Your task to perform on an android device: Search for the best 4K TV Image 0: 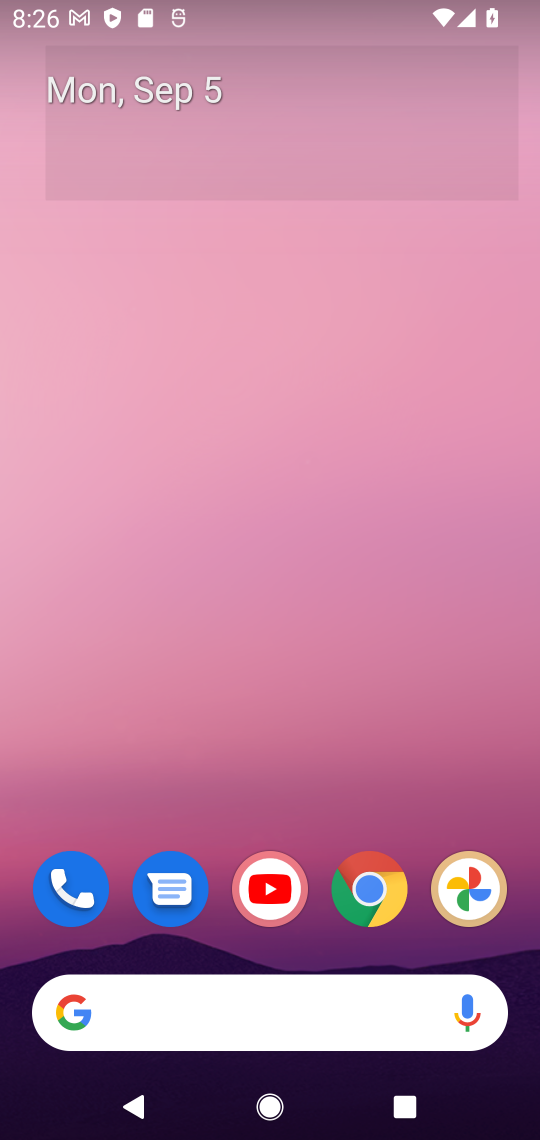
Step 0: click (328, 999)
Your task to perform on an android device: Search for the best 4K TV Image 1: 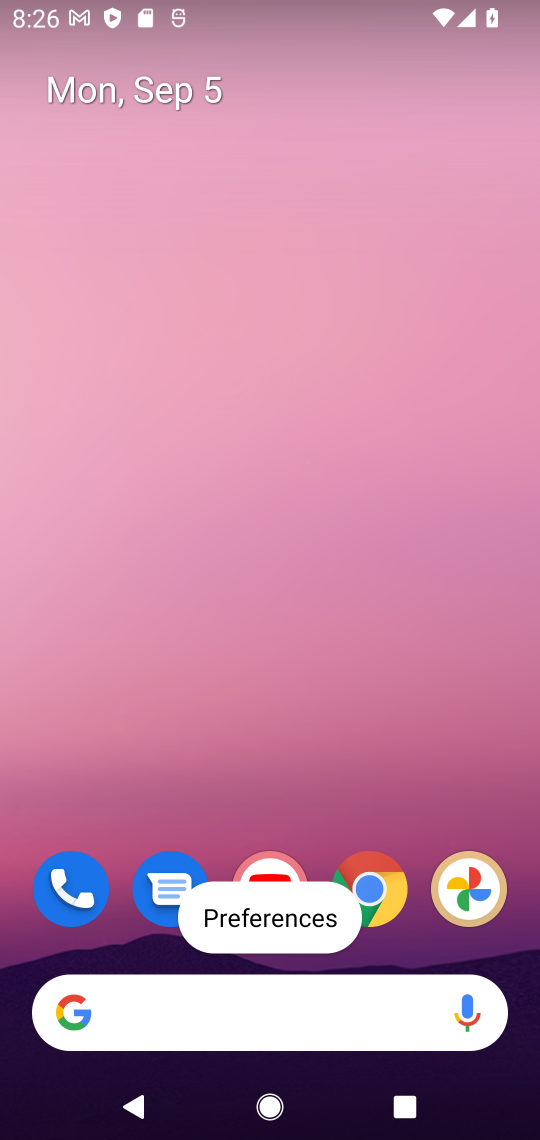
Step 1: click (279, 1017)
Your task to perform on an android device: Search for the best 4K TV Image 2: 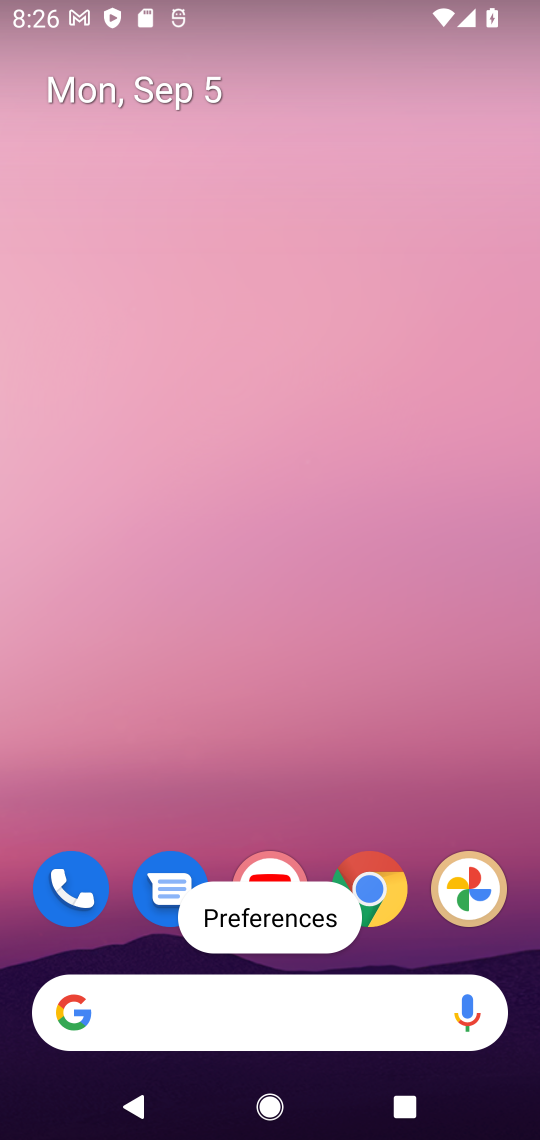
Step 2: click (236, 1025)
Your task to perform on an android device: Search for the best 4K TV Image 3: 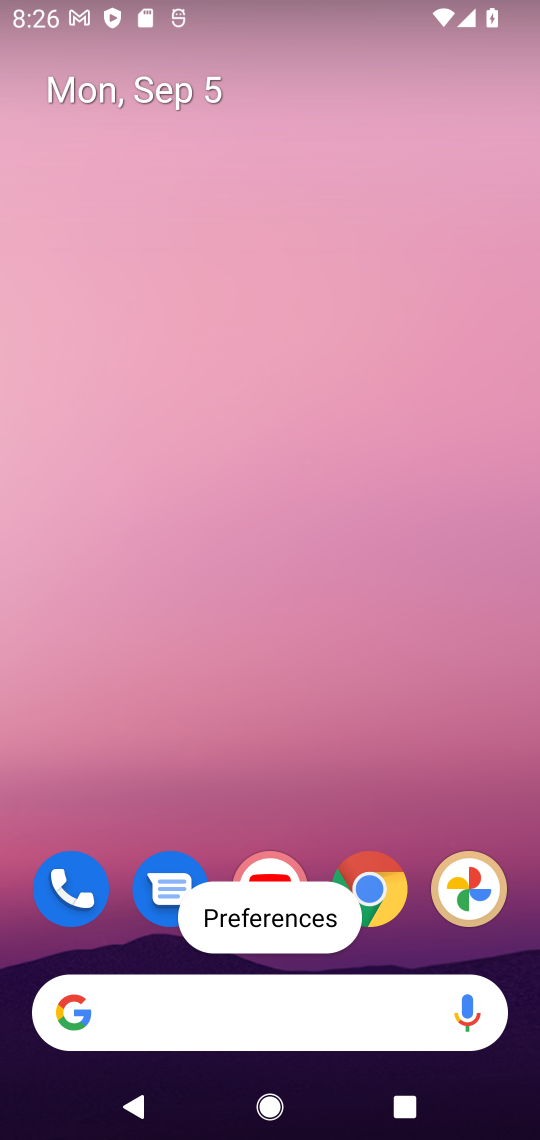
Step 3: click (236, 1025)
Your task to perform on an android device: Search for the best 4K TV Image 4: 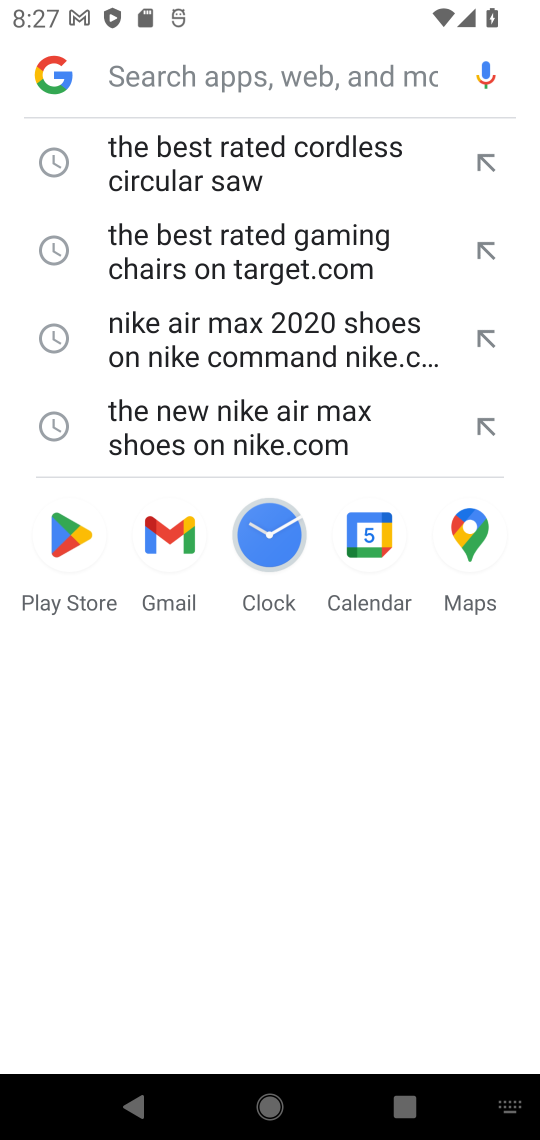
Step 4: type " the best 4K TV"
Your task to perform on an android device: Search for the best 4K TV Image 5: 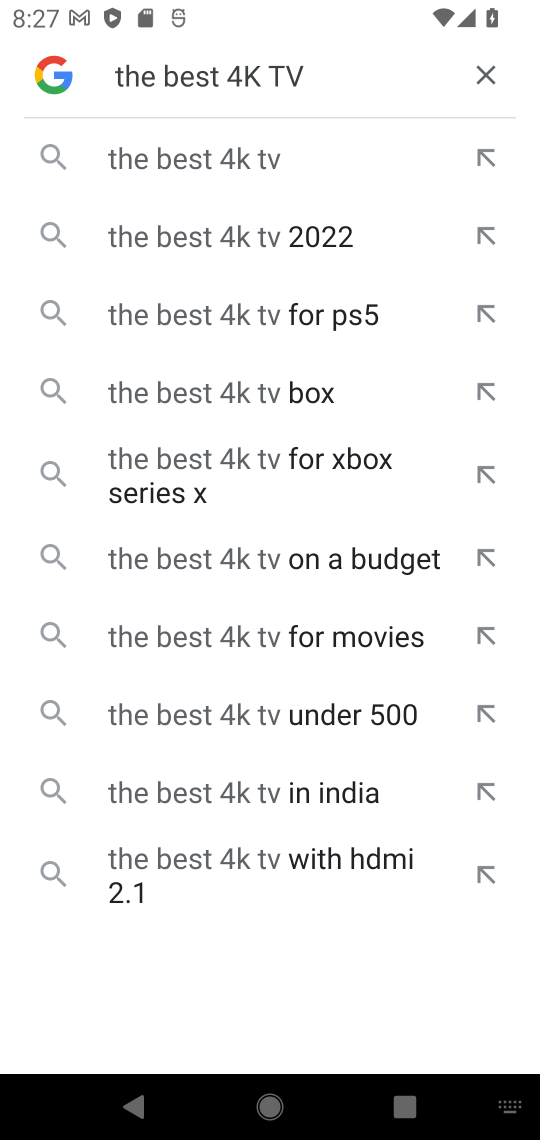
Step 5: click (250, 153)
Your task to perform on an android device: Search for the best 4K TV Image 6: 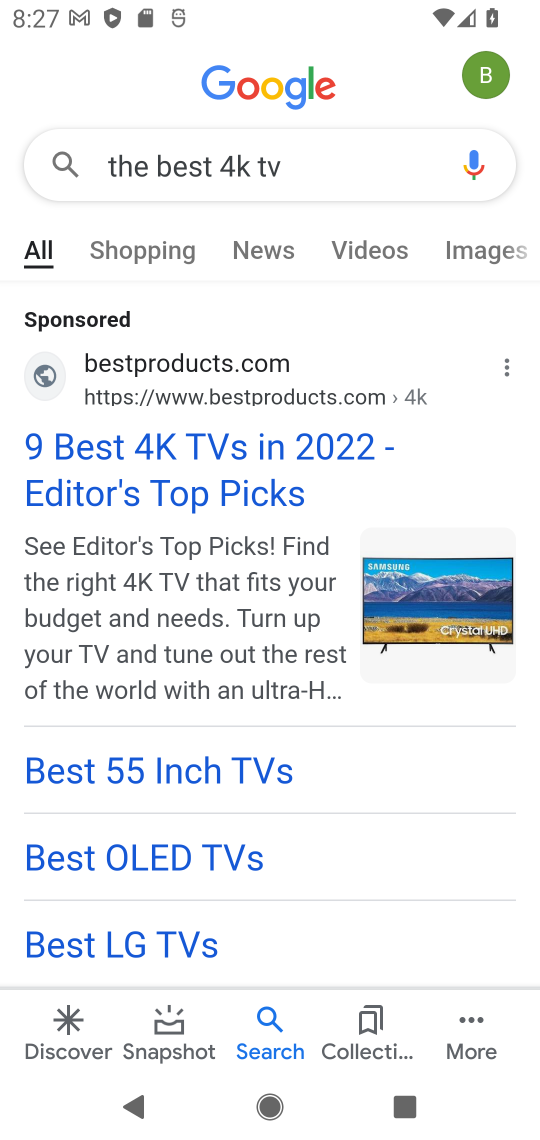
Step 6: task complete